Your task to perform on an android device: What's on my calendar today? Image 0: 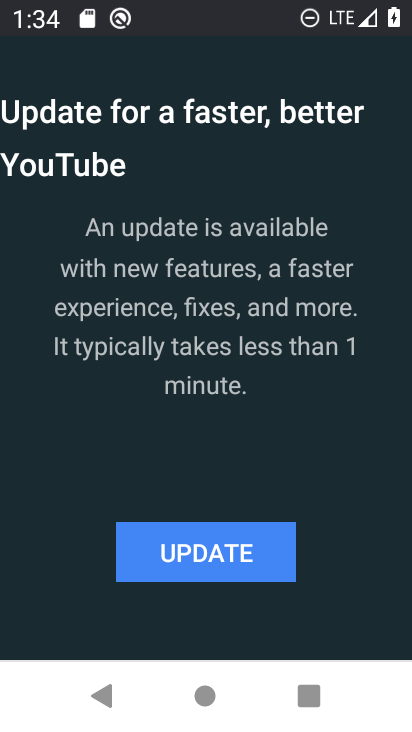
Step 0: press home button
Your task to perform on an android device: What's on my calendar today? Image 1: 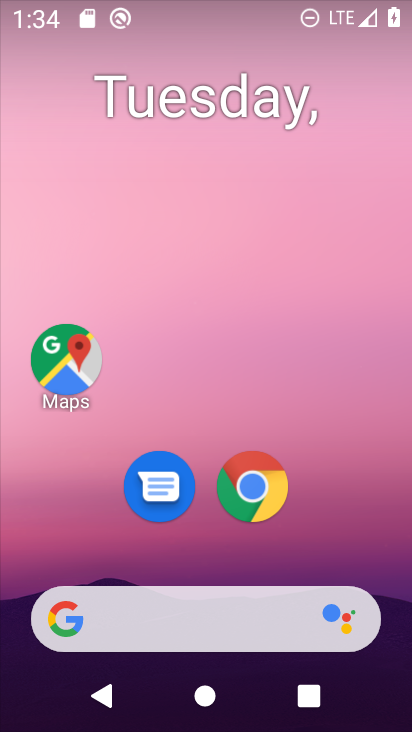
Step 1: drag from (221, 538) to (216, 69)
Your task to perform on an android device: What's on my calendar today? Image 2: 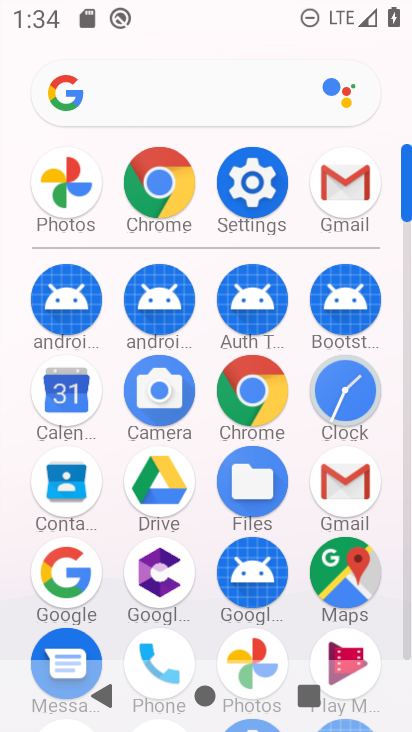
Step 2: click (70, 403)
Your task to perform on an android device: What's on my calendar today? Image 3: 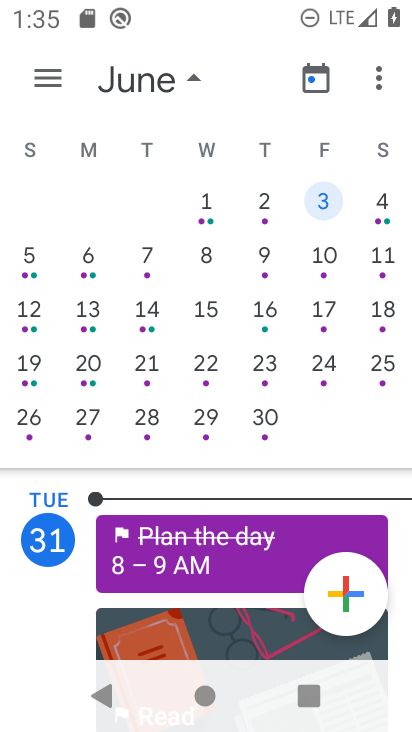
Step 3: drag from (62, 316) to (377, 348)
Your task to perform on an android device: What's on my calendar today? Image 4: 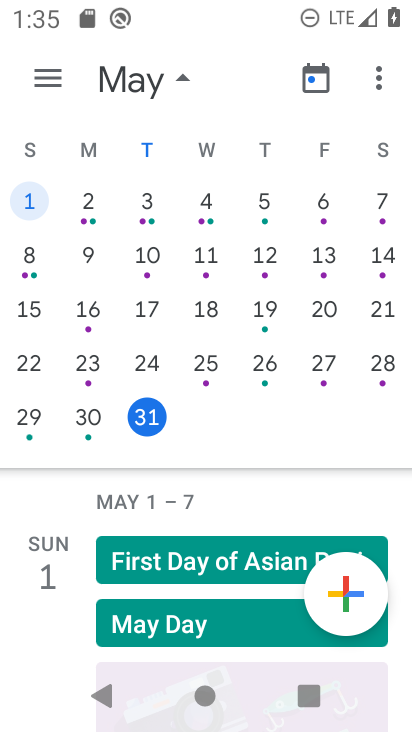
Step 4: click (141, 422)
Your task to perform on an android device: What's on my calendar today? Image 5: 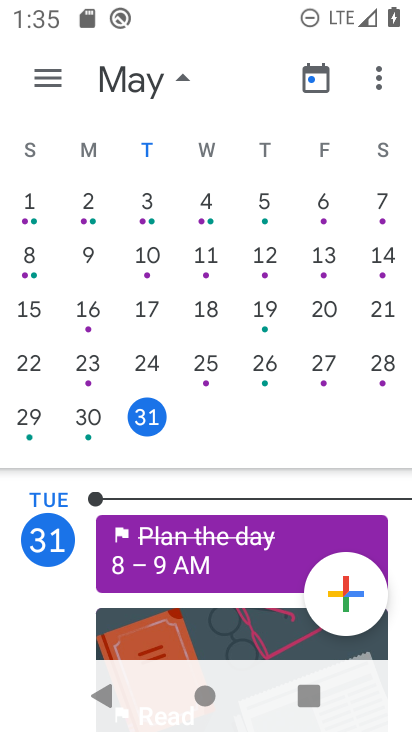
Step 5: click (147, 75)
Your task to perform on an android device: What's on my calendar today? Image 6: 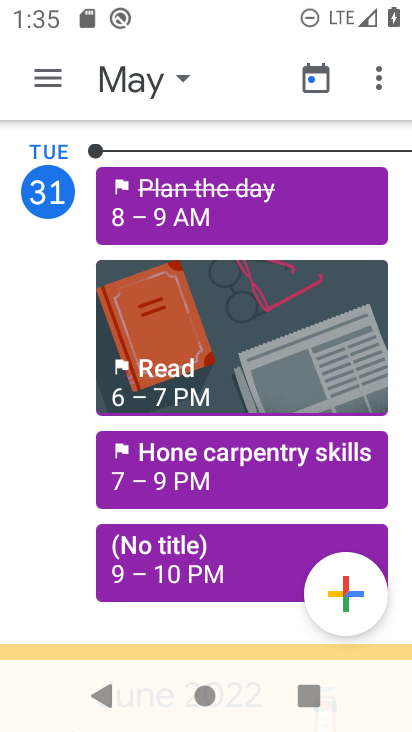
Step 6: task complete